Your task to perform on an android device: Open the web browser Image 0: 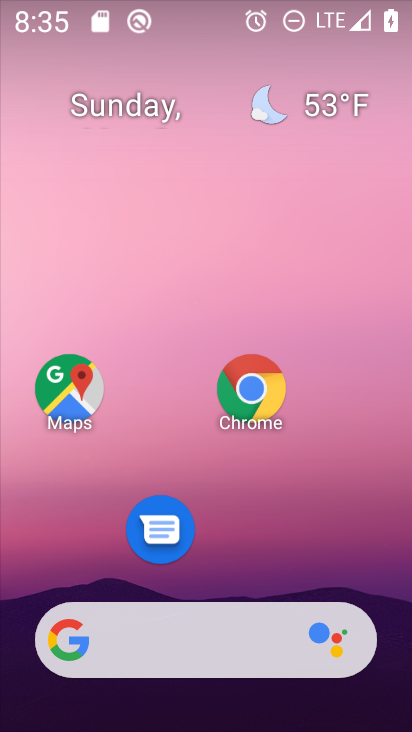
Step 0: click (242, 383)
Your task to perform on an android device: Open the web browser Image 1: 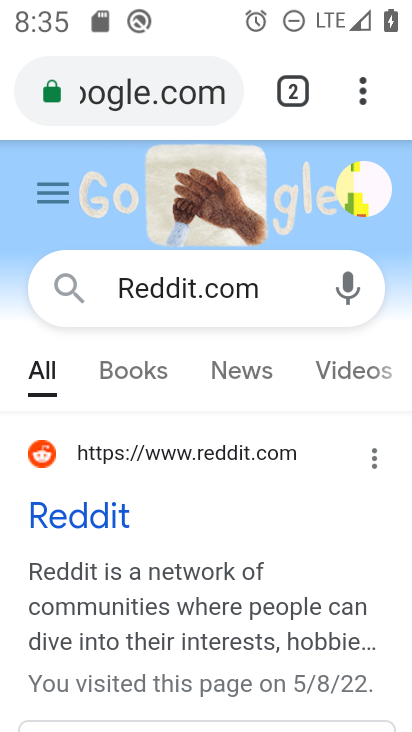
Step 1: task complete